Your task to perform on an android device: Check the weather Image 0: 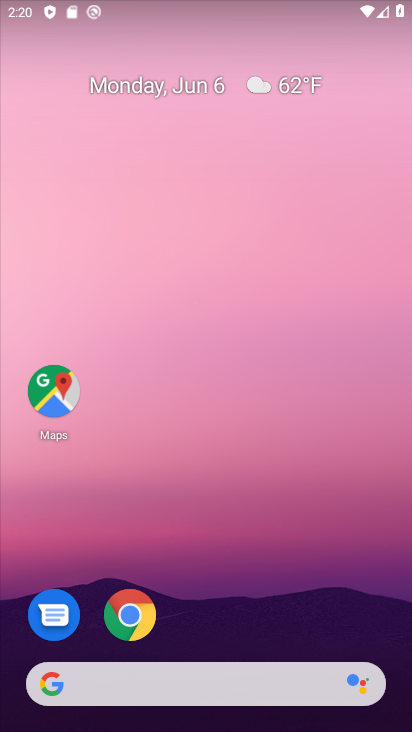
Step 0: drag from (354, 691) to (391, 5)
Your task to perform on an android device: Check the weather Image 1: 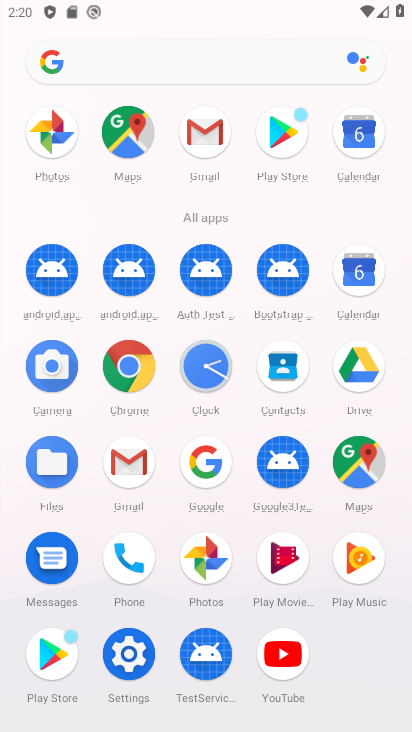
Step 1: click (136, 370)
Your task to perform on an android device: Check the weather Image 2: 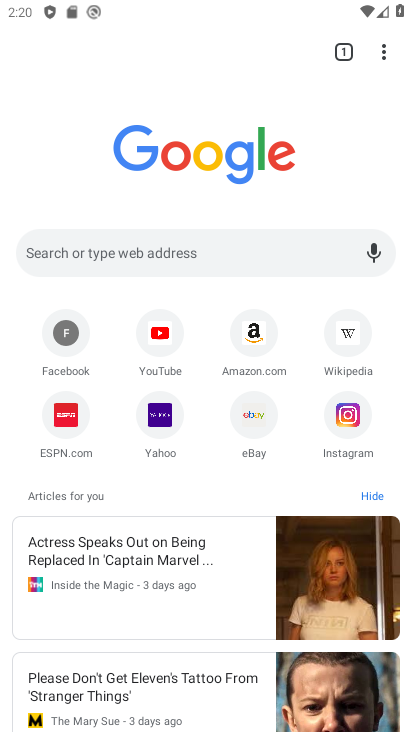
Step 2: click (69, 405)
Your task to perform on an android device: Check the weather Image 3: 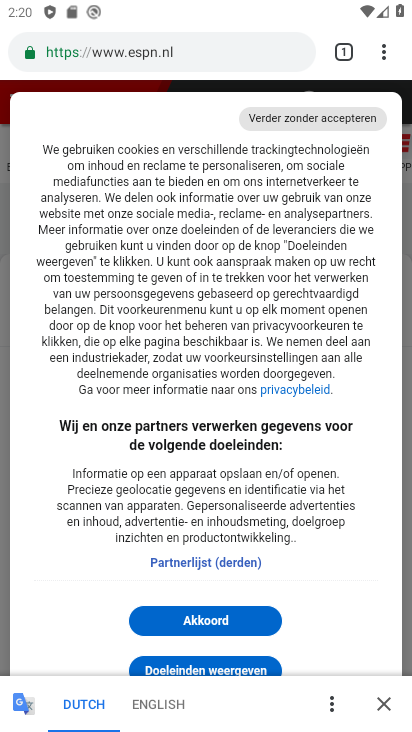
Step 3: task complete